Your task to perform on an android device: Add macbook pro 15 inch to the cart on bestbuy.com Image 0: 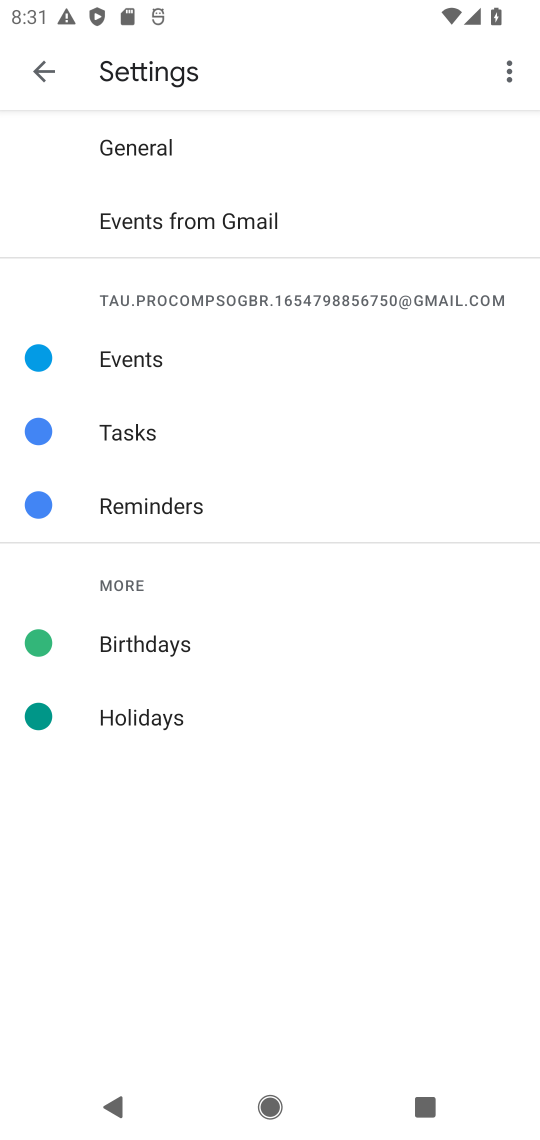
Step 0: press home button
Your task to perform on an android device: Add macbook pro 15 inch to the cart on bestbuy.com Image 1: 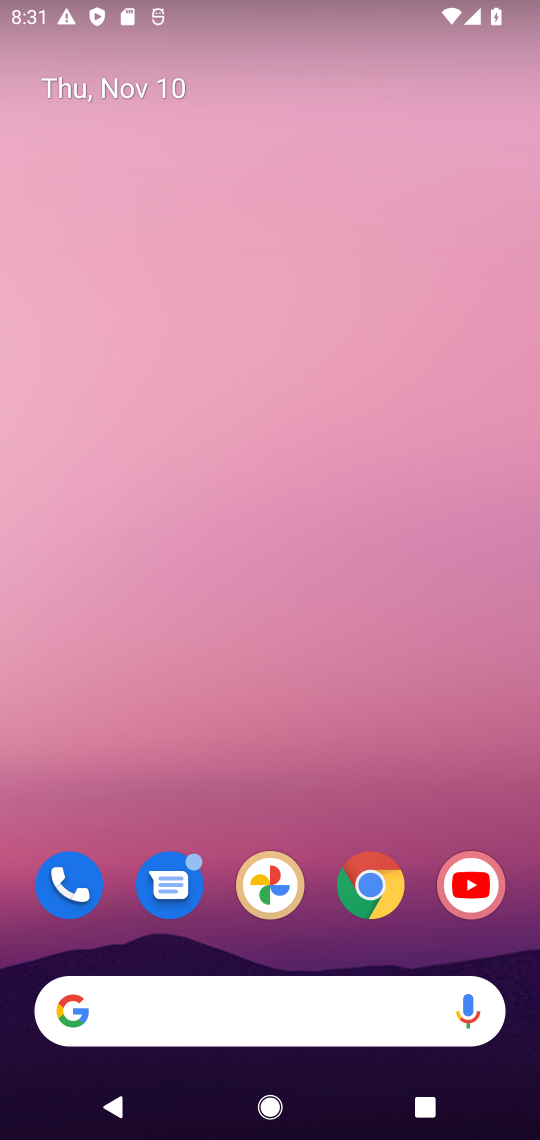
Step 1: click (367, 887)
Your task to perform on an android device: Add macbook pro 15 inch to the cart on bestbuy.com Image 2: 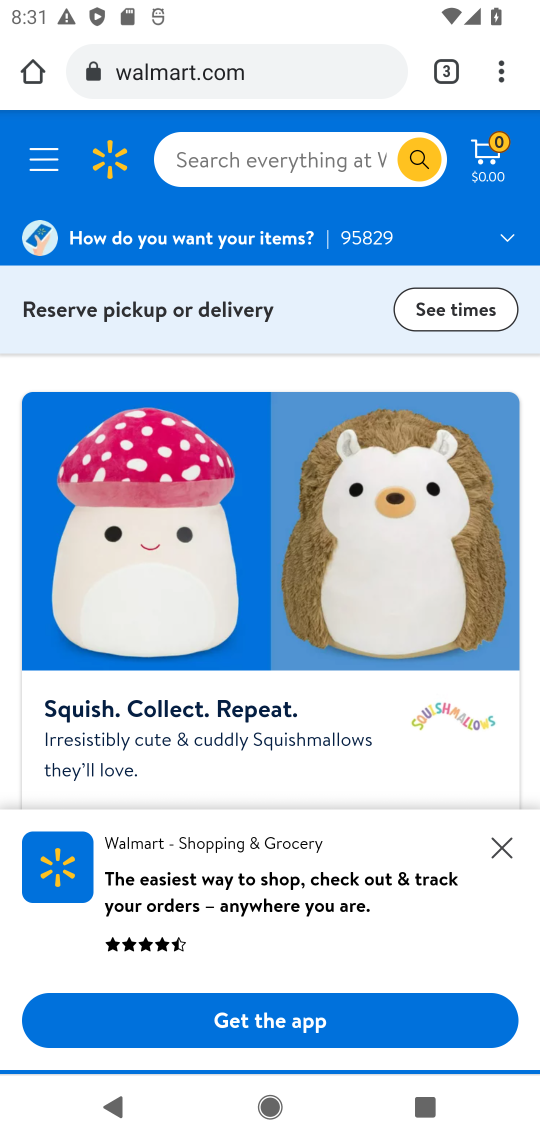
Step 2: click (444, 68)
Your task to perform on an android device: Add macbook pro 15 inch to the cart on bestbuy.com Image 3: 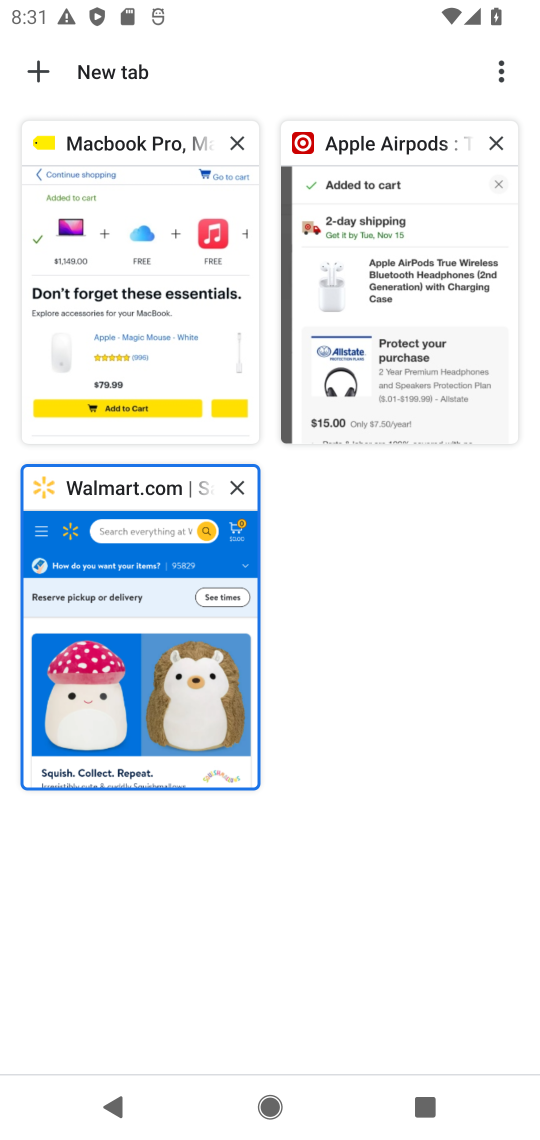
Step 3: click (156, 269)
Your task to perform on an android device: Add macbook pro 15 inch to the cart on bestbuy.com Image 4: 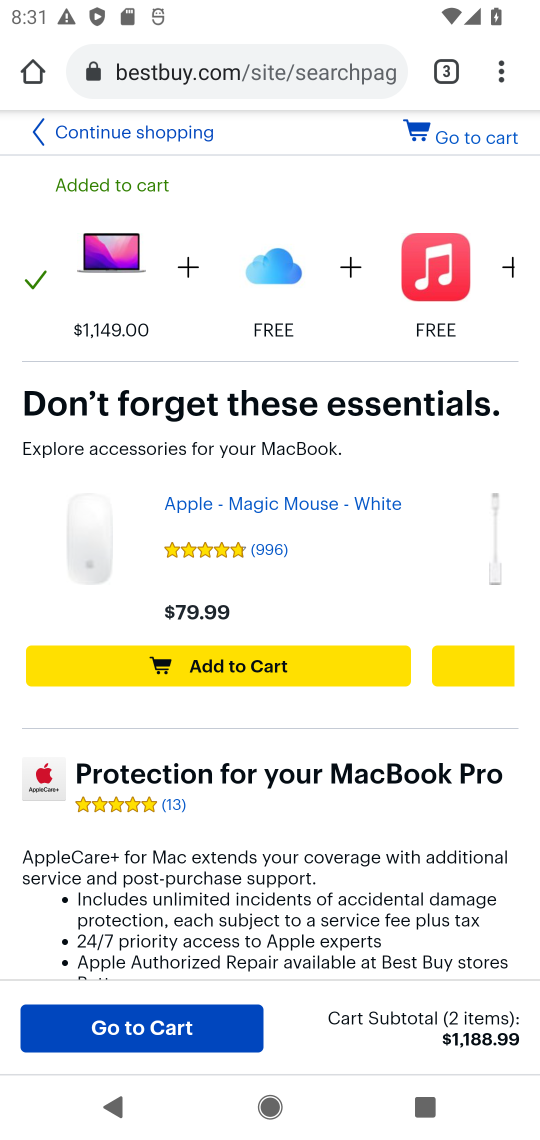
Step 4: click (450, 132)
Your task to perform on an android device: Add macbook pro 15 inch to the cart on bestbuy.com Image 5: 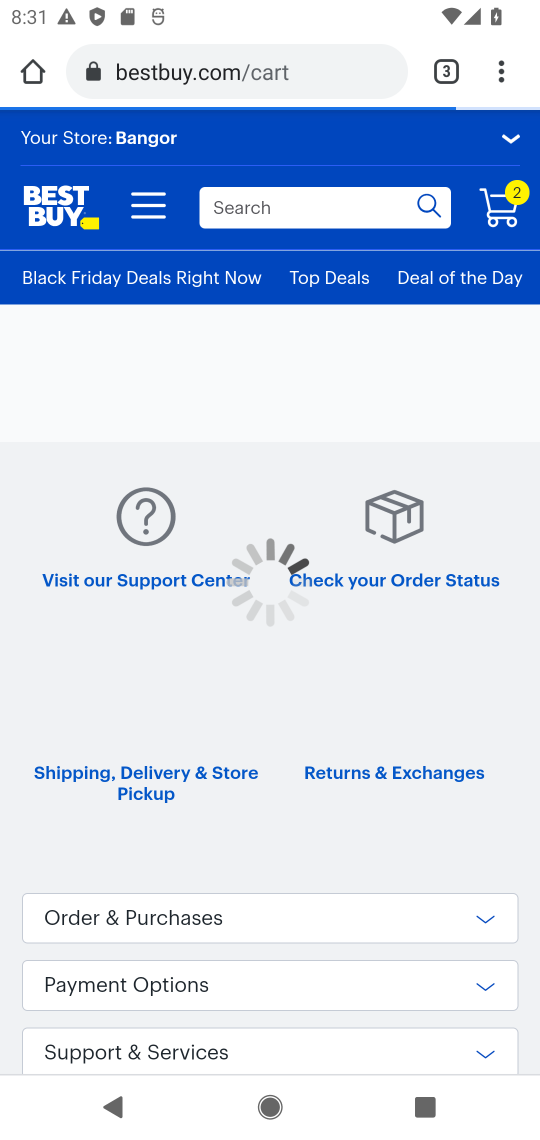
Step 5: click (251, 200)
Your task to perform on an android device: Add macbook pro 15 inch to the cart on bestbuy.com Image 6: 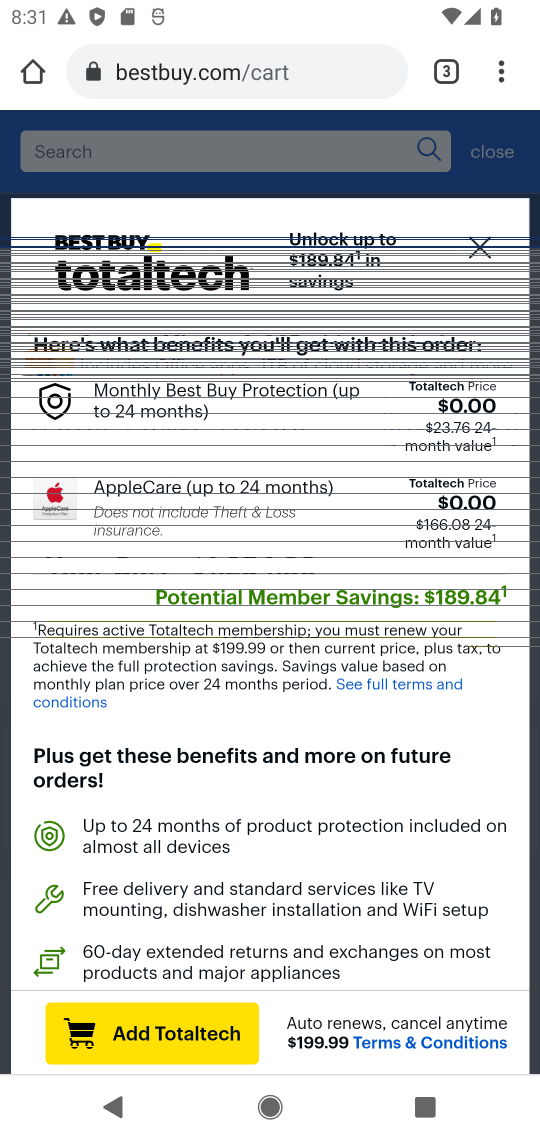
Step 6: type "macbook pro 15 inch"
Your task to perform on an android device: Add macbook pro 15 inch to the cart on bestbuy.com Image 7: 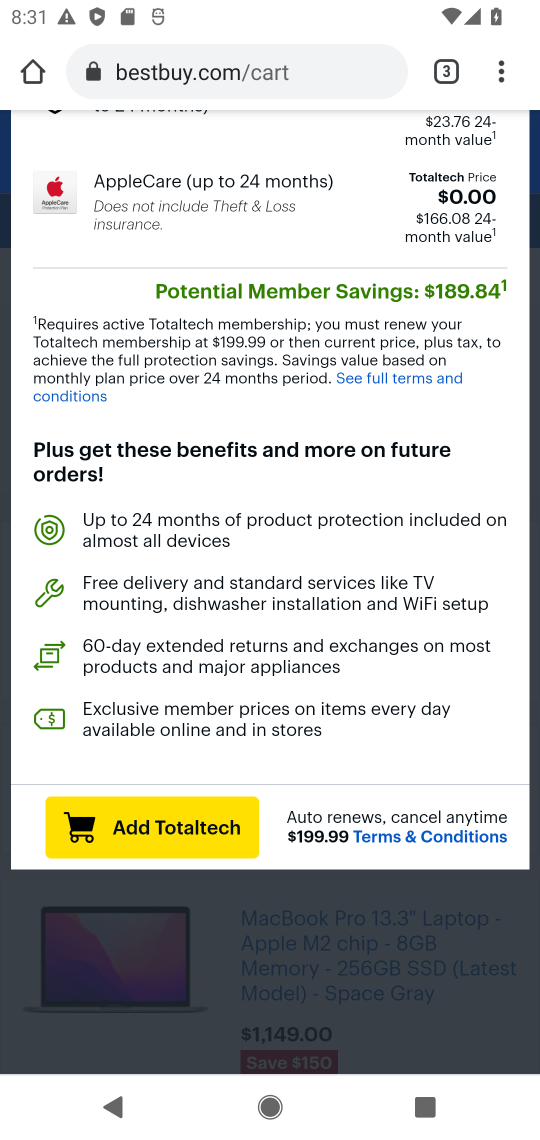
Step 7: drag from (490, 631) to (386, 1017)
Your task to perform on an android device: Add macbook pro 15 inch to the cart on bestbuy.com Image 8: 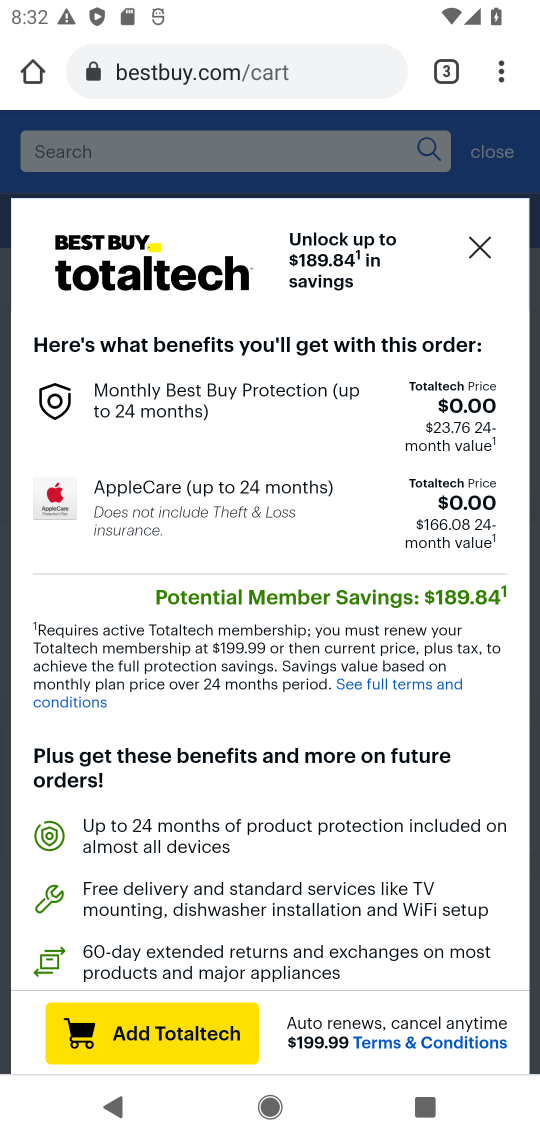
Step 8: click (484, 239)
Your task to perform on an android device: Add macbook pro 15 inch to the cart on bestbuy.com Image 9: 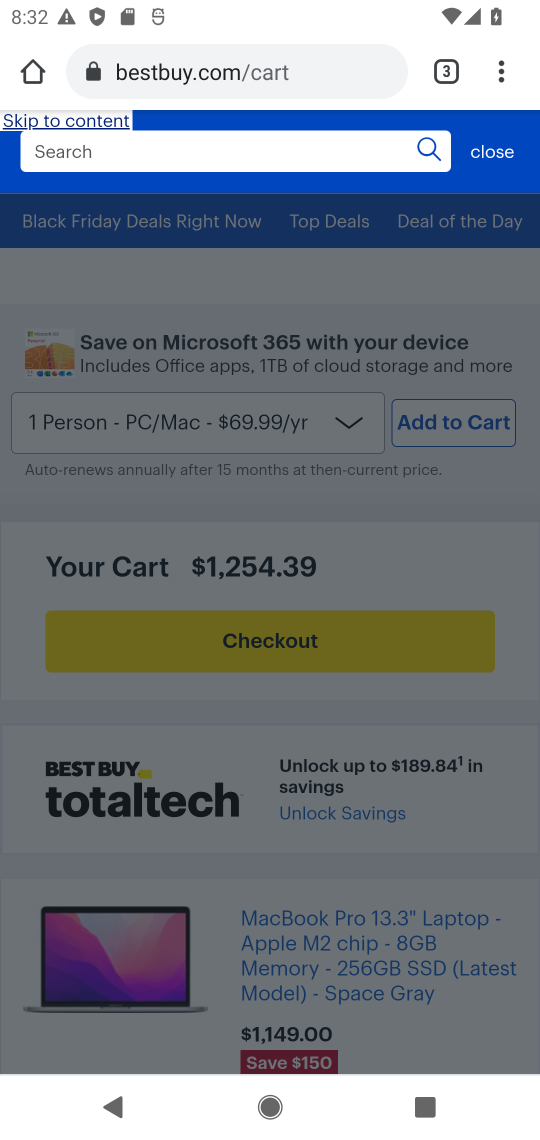
Step 9: click (217, 157)
Your task to perform on an android device: Add macbook pro 15 inch to the cart on bestbuy.com Image 10: 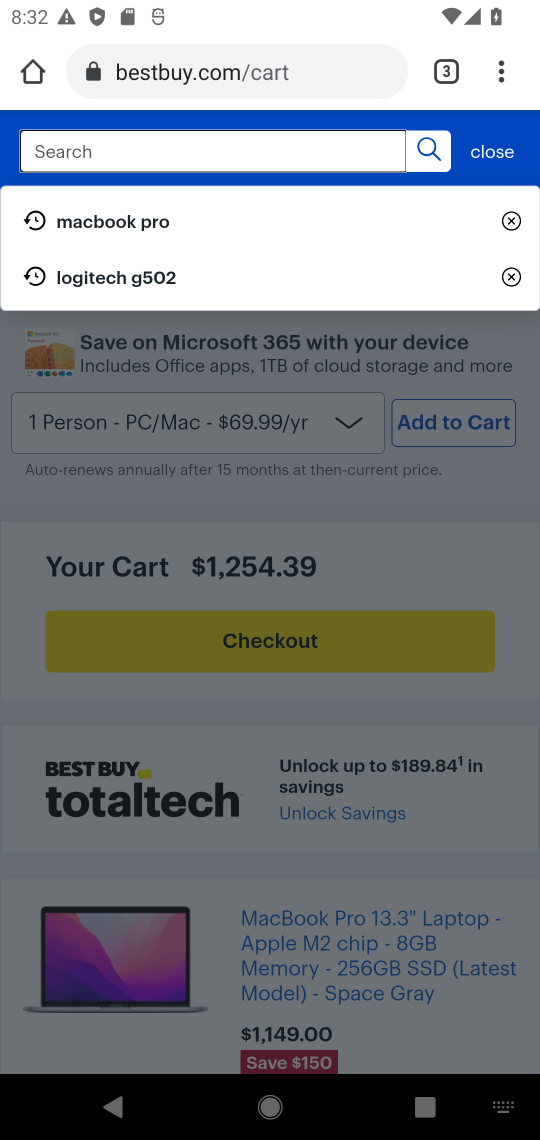
Step 10: type "macbook pro 15 inch"
Your task to perform on an android device: Add macbook pro 15 inch to the cart on bestbuy.com Image 11: 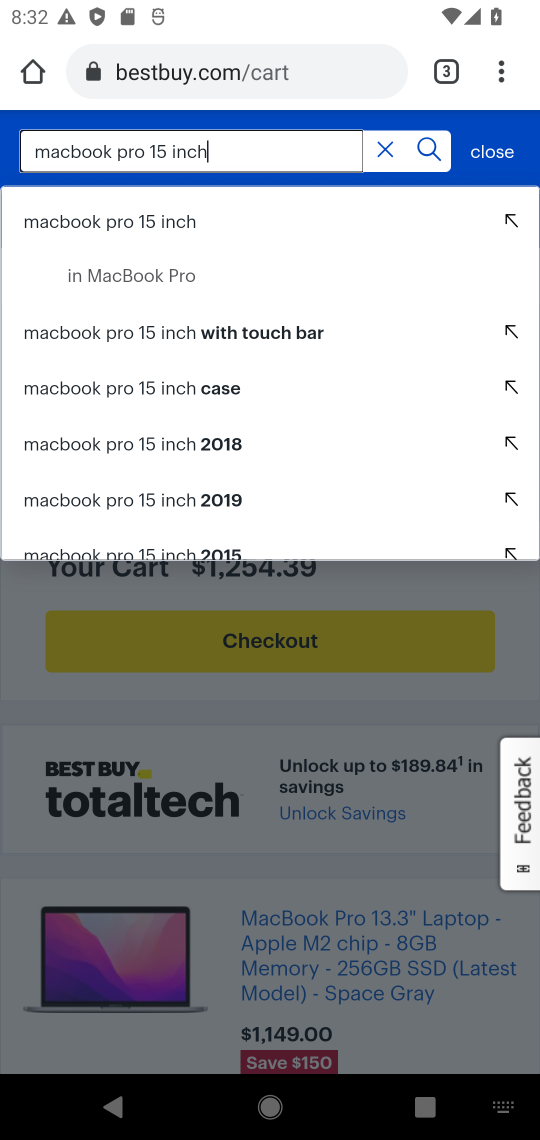
Step 11: click (78, 205)
Your task to perform on an android device: Add macbook pro 15 inch to the cart on bestbuy.com Image 12: 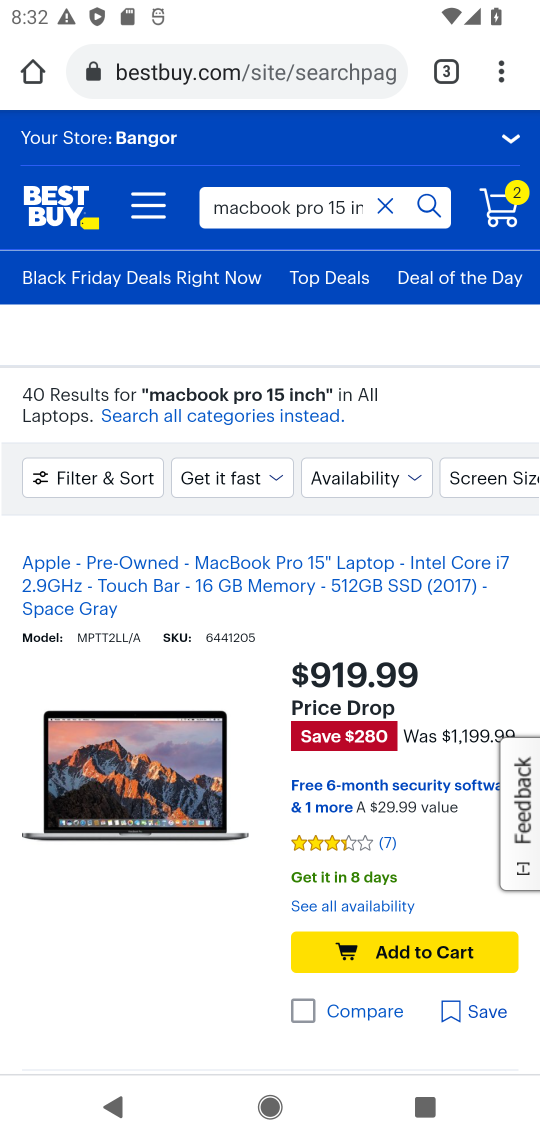
Step 12: click (356, 944)
Your task to perform on an android device: Add macbook pro 15 inch to the cart on bestbuy.com Image 13: 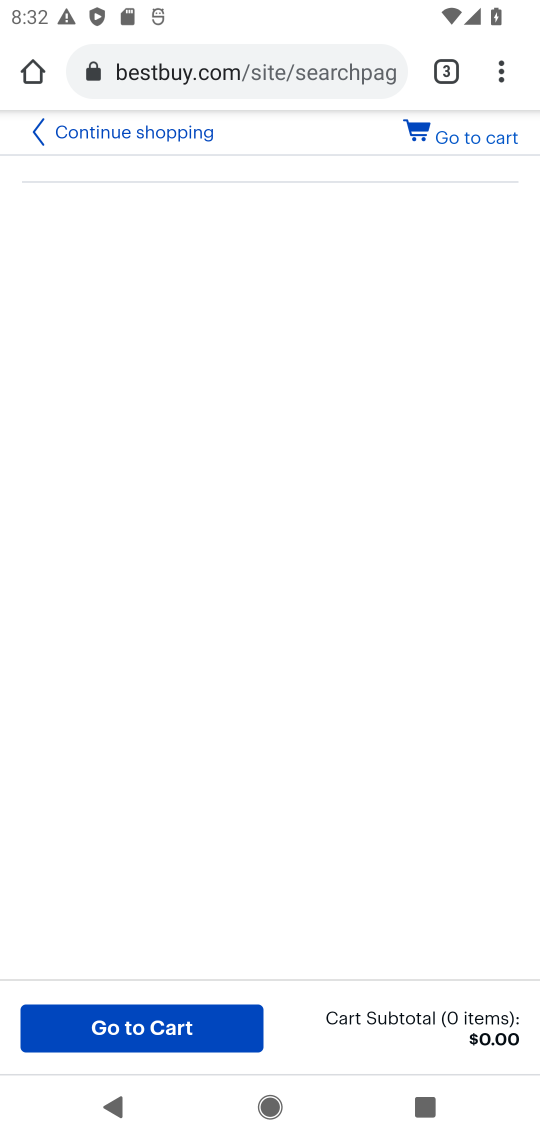
Step 13: task complete